Your task to perform on an android device: show emergency info Image 0: 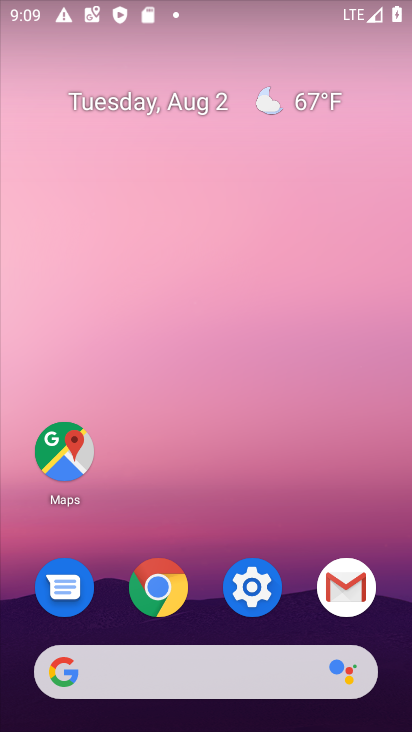
Step 0: click (242, 596)
Your task to perform on an android device: show emergency info Image 1: 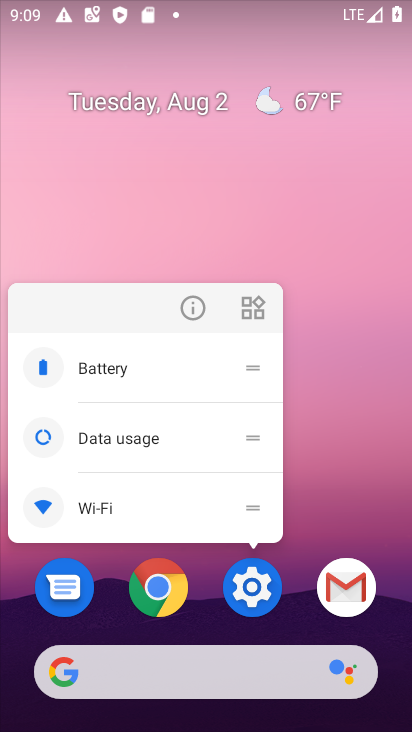
Step 1: click (240, 596)
Your task to perform on an android device: show emergency info Image 2: 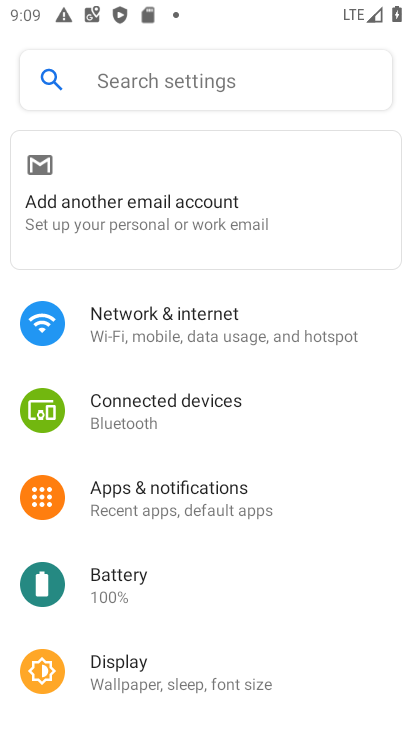
Step 2: click (144, 90)
Your task to perform on an android device: show emergency info Image 3: 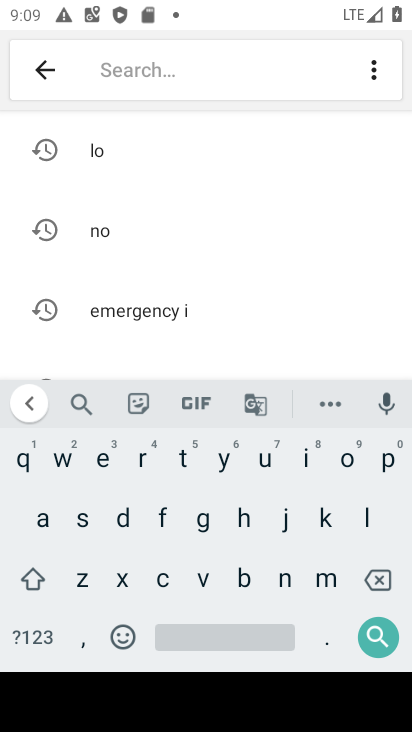
Step 3: click (153, 302)
Your task to perform on an android device: show emergency info Image 4: 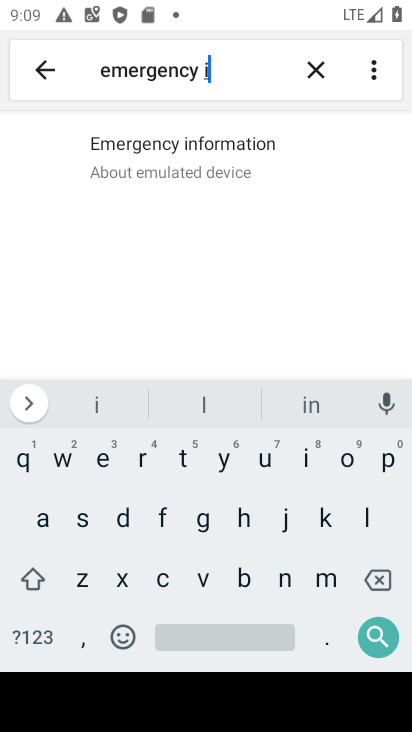
Step 4: click (145, 314)
Your task to perform on an android device: show emergency info Image 5: 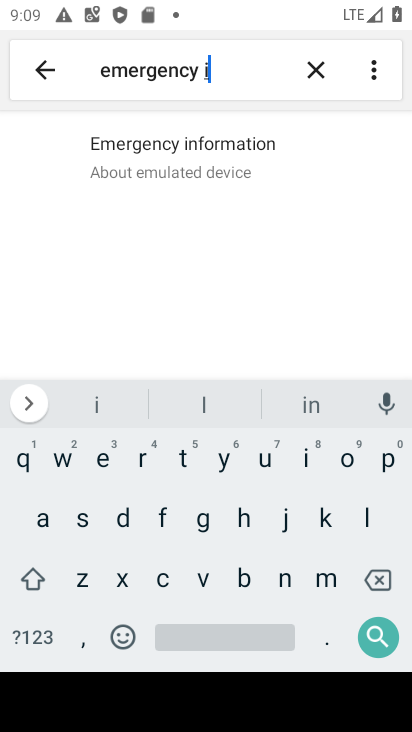
Step 5: click (202, 154)
Your task to perform on an android device: show emergency info Image 6: 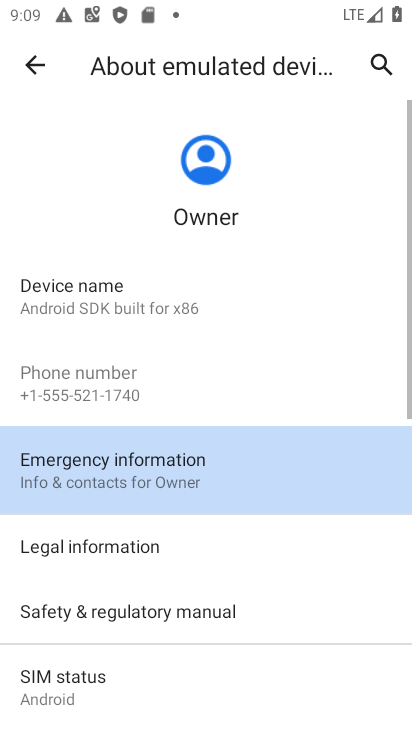
Step 6: click (105, 466)
Your task to perform on an android device: show emergency info Image 7: 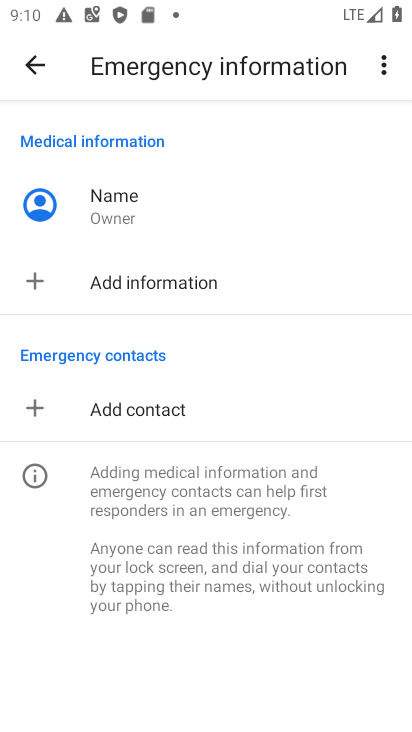
Step 7: task complete